Your task to perform on an android device: open a bookmark in the chrome app Image 0: 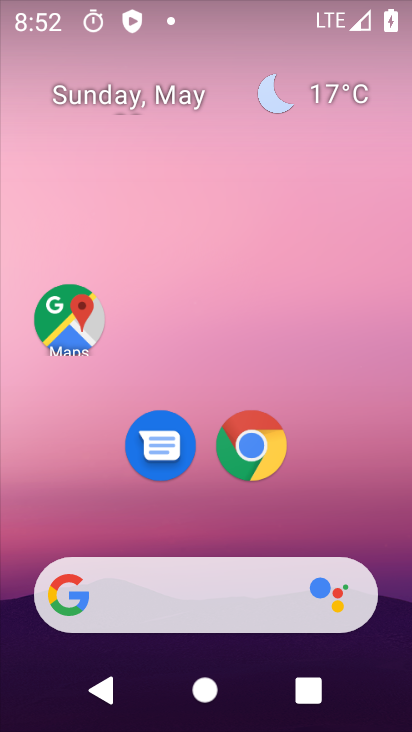
Step 0: drag from (201, 547) to (211, 53)
Your task to perform on an android device: open a bookmark in the chrome app Image 1: 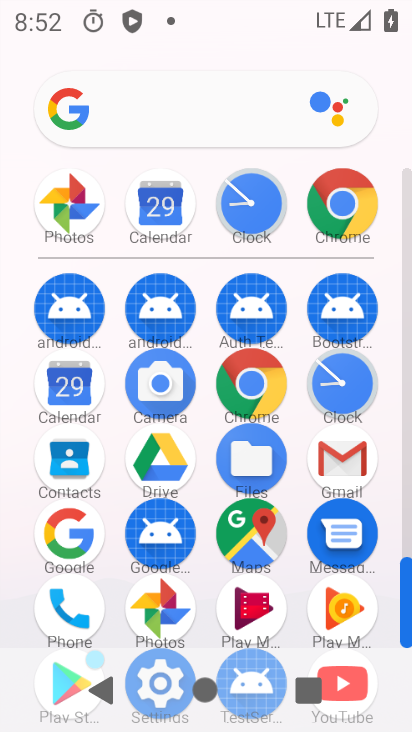
Step 1: click (260, 377)
Your task to perform on an android device: open a bookmark in the chrome app Image 2: 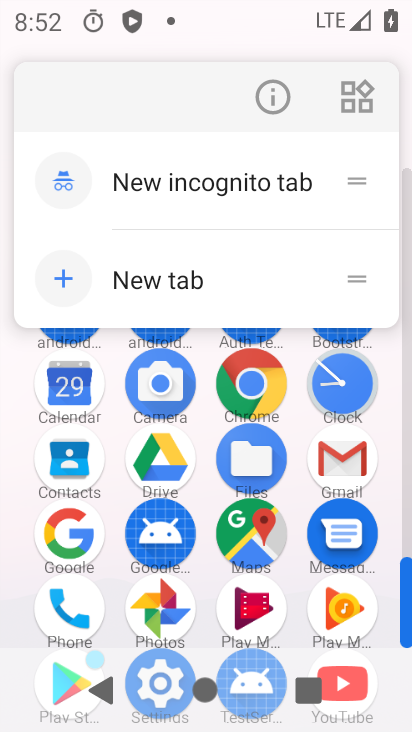
Step 2: click (278, 95)
Your task to perform on an android device: open a bookmark in the chrome app Image 3: 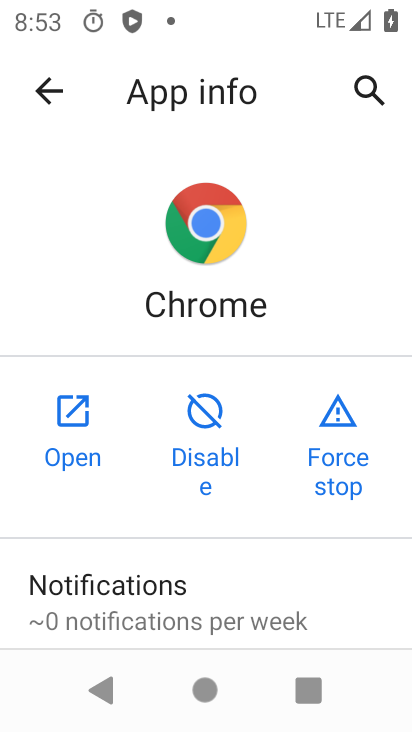
Step 3: click (63, 420)
Your task to perform on an android device: open a bookmark in the chrome app Image 4: 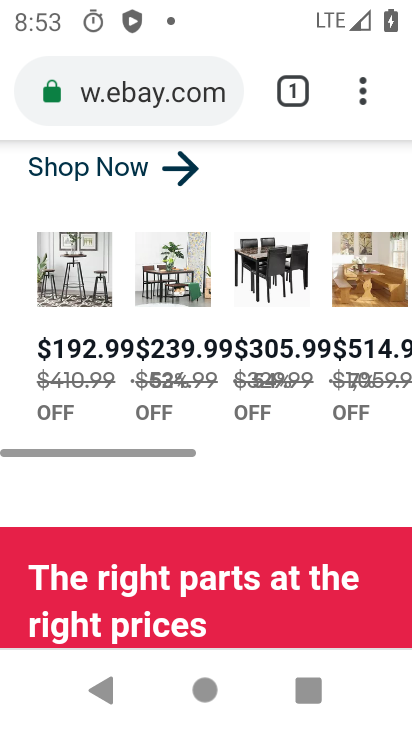
Step 4: task complete